Your task to perform on an android device: open wifi settings Image 0: 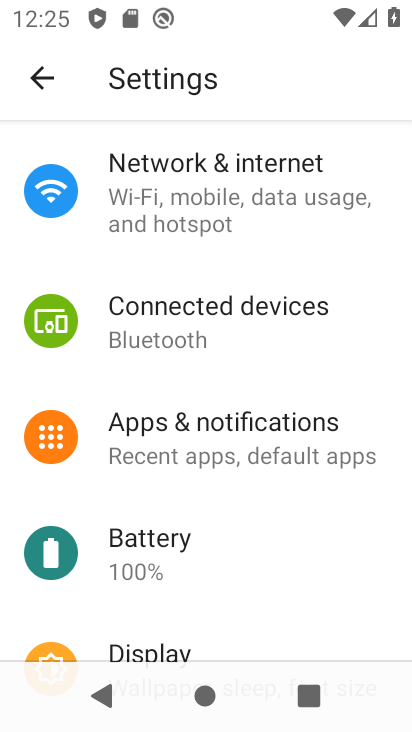
Step 0: click (297, 199)
Your task to perform on an android device: open wifi settings Image 1: 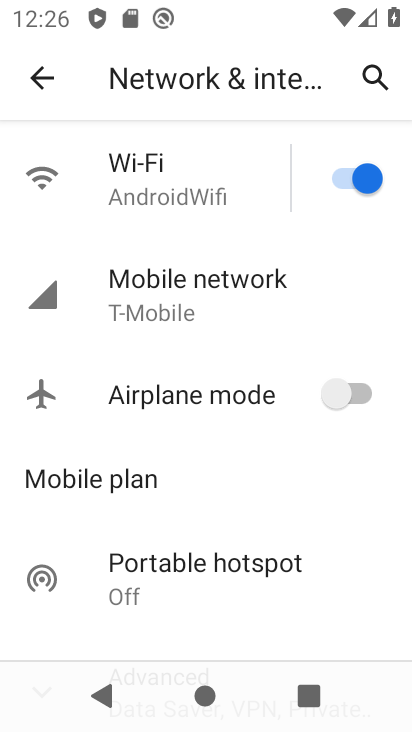
Step 1: click (144, 169)
Your task to perform on an android device: open wifi settings Image 2: 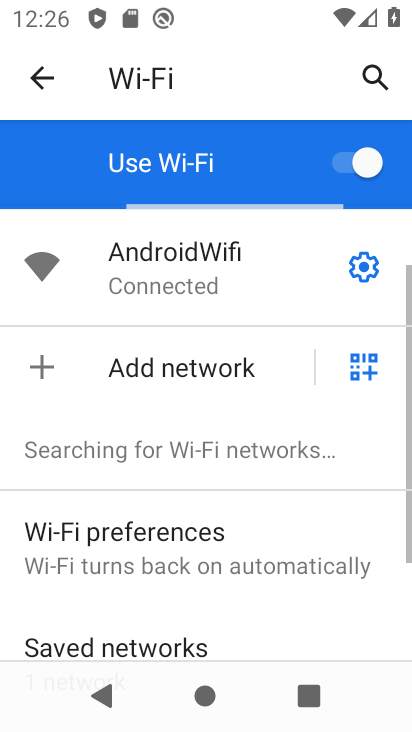
Step 2: task complete